Your task to perform on an android device: Go to Android settings Image 0: 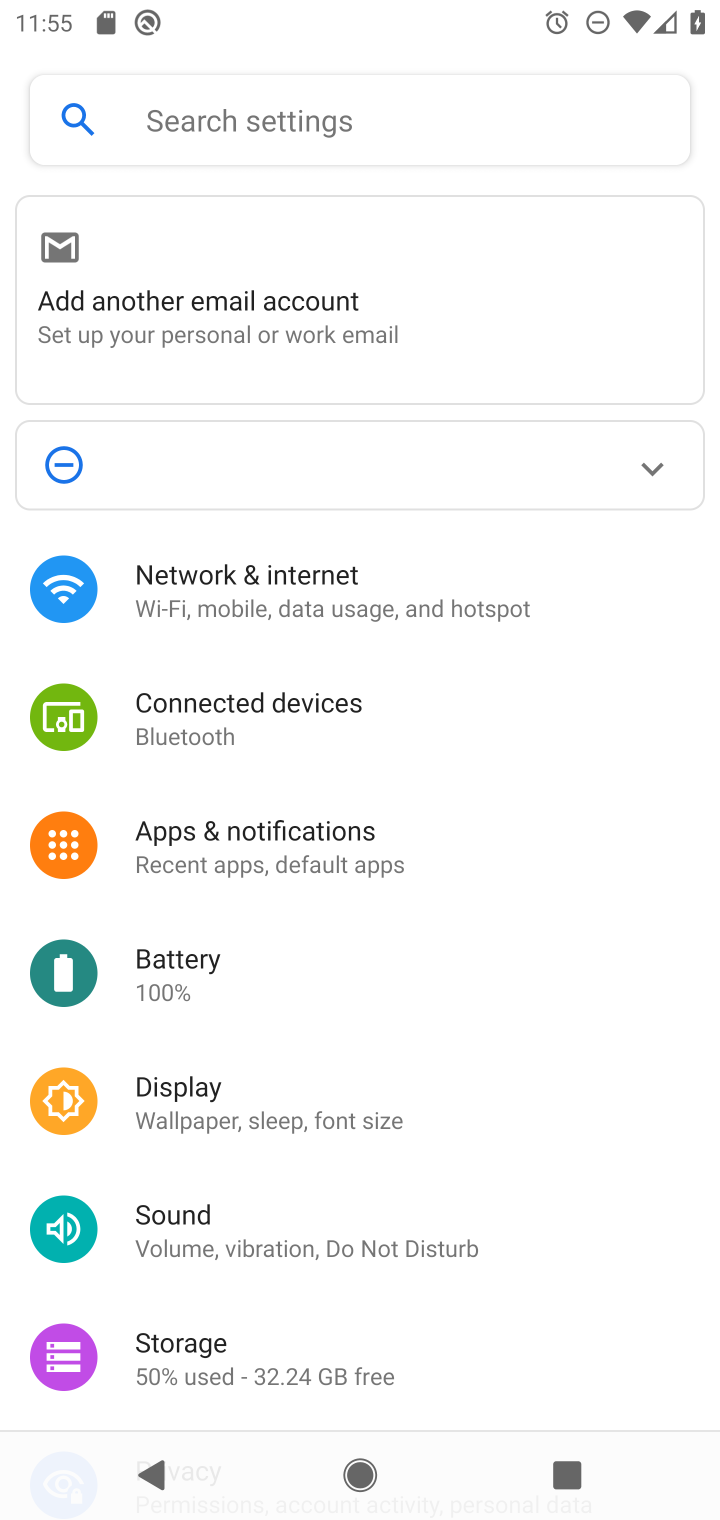
Step 0: drag from (396, 1316) to (658, 14)
Your task to perform on an android device: Go to Android settings Image 1: 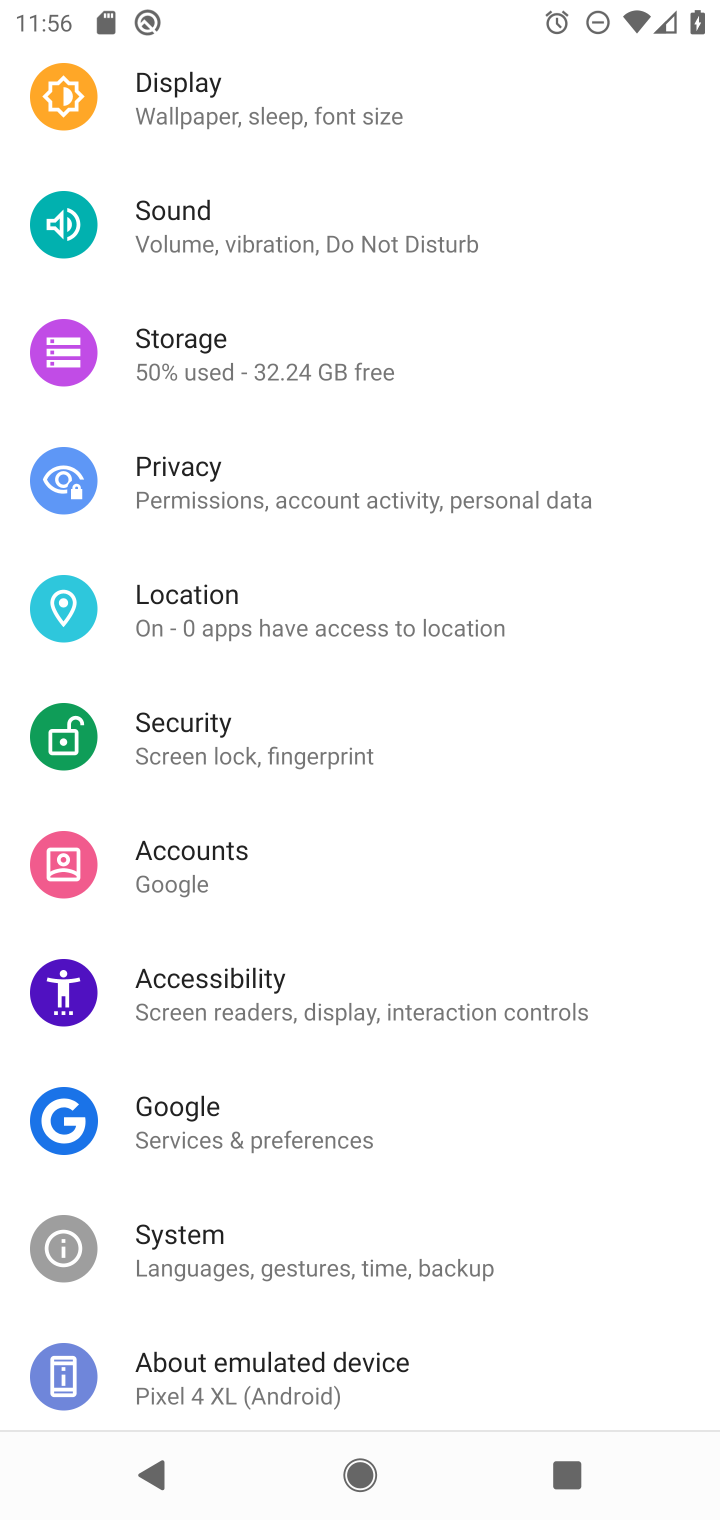
Step 1: task complete